Your task to perform on an android device: Open the phone app and click the voicemail tab. Image 0: 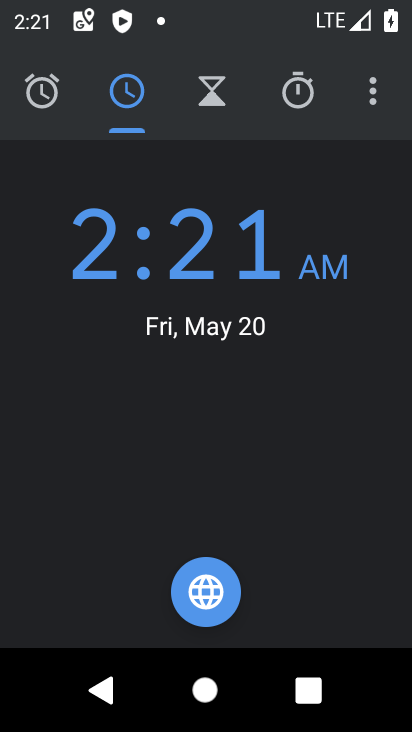
Step 0: press home button
Your task to perform on an android device: Open the phone app and click the voicemail tab. Image 1: 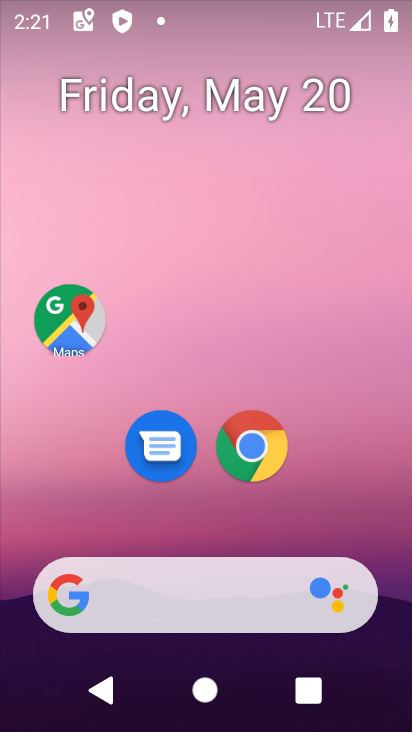
Step 1: drag from (342, 554) to (339, 10)
Your task to perform on an android device: Open the phone app and click the voicemail tab. Image 2: 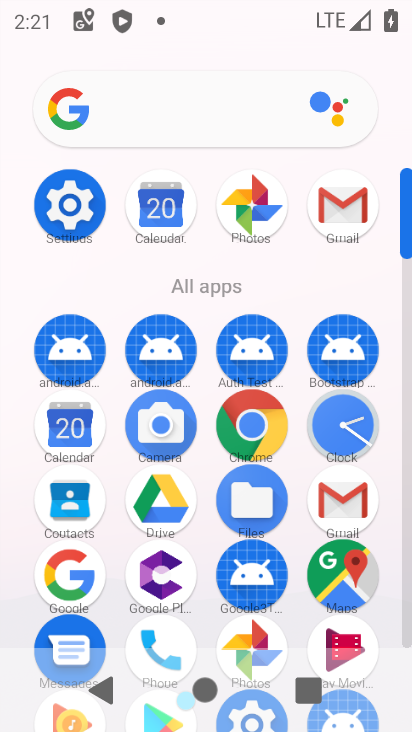
Step 2: click (156, 631)
Your task to perform on an android device: Open the phone app and click the voicemail tab. Image 3: 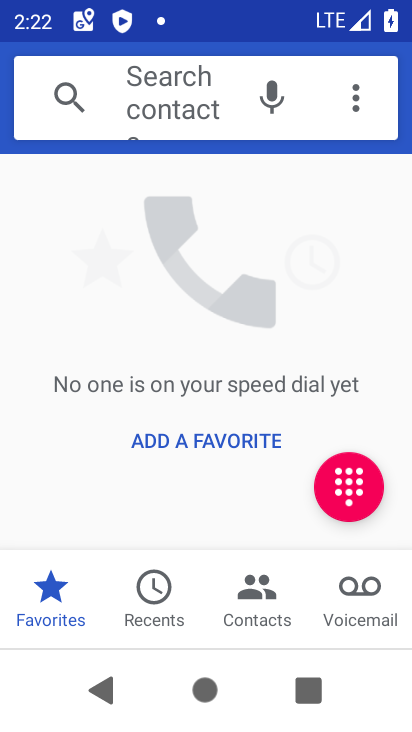
Step 3: click (369, 601)
Your task to perform on an android device: Open the phone app and click the voicemail tab. Image 4: 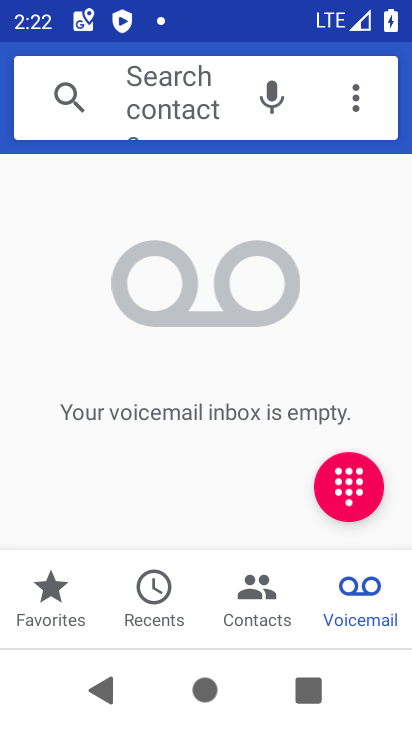
Step 4: task complete